Your task to perform on an android device: turn off wifi Image 0: 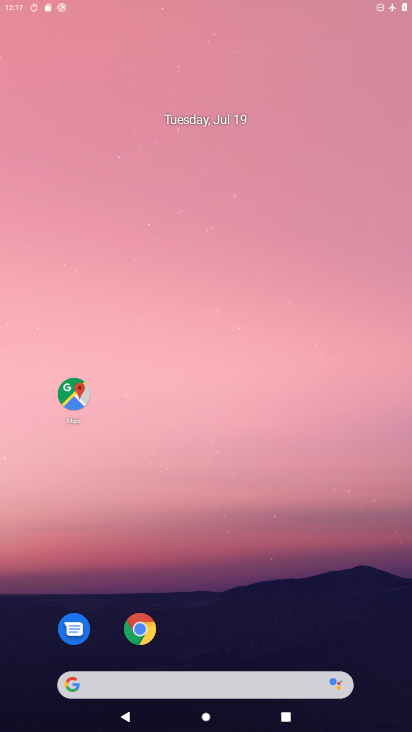
Step 0: drag from (270, 576) to (260, 39)
Your task to perform on an android device: turn off wifi Image 1: 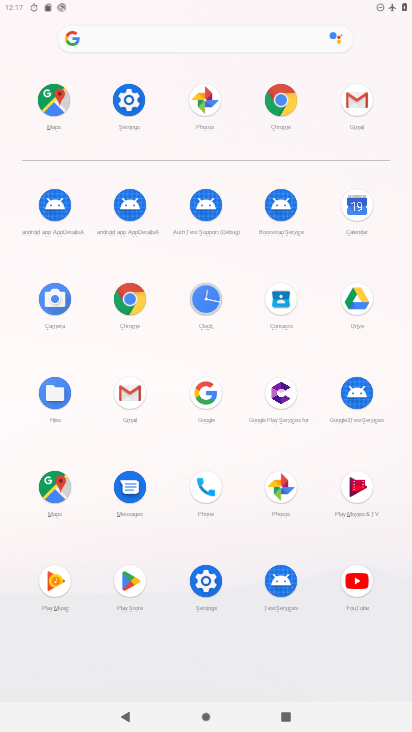
Step 1: click (118, 112)
Your task to perform on an android device: turn off wifi Image 2: 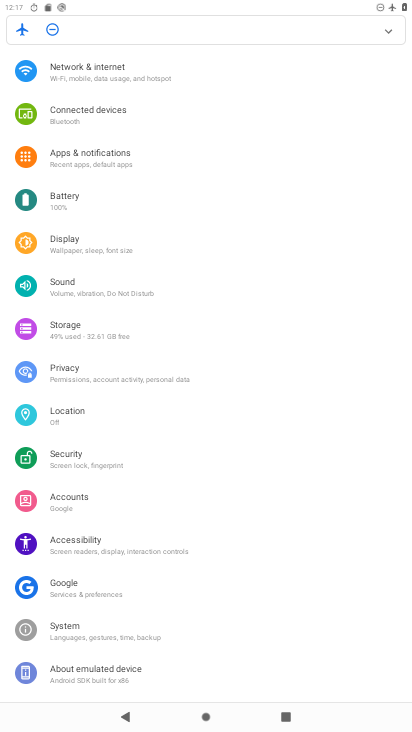
Step 2: click (77, 79)
Your task to perform on an android device: turn off wifi Image 3: 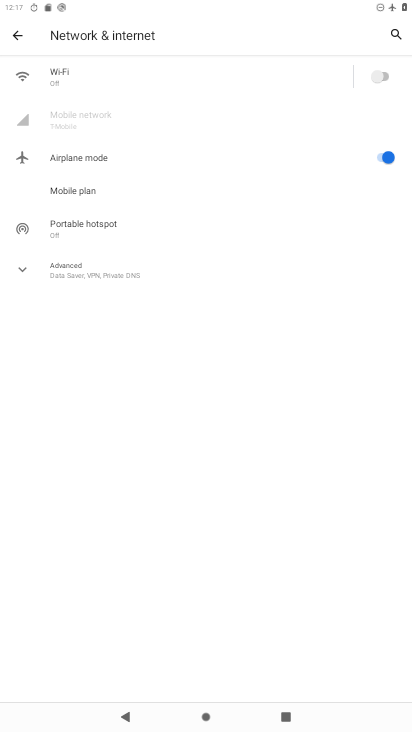
Step 3: task complete